Your task to perform on an android device: Go to CNN.com Image 0: 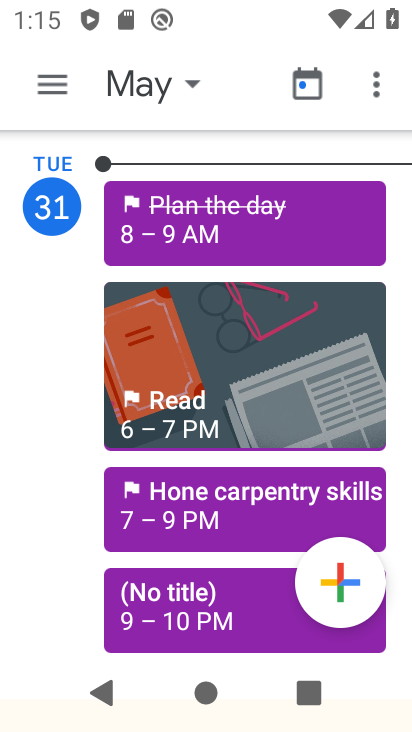
Step 0: task complete